Your task to perform on an android device: Do I have any events this weekend? Image 0: 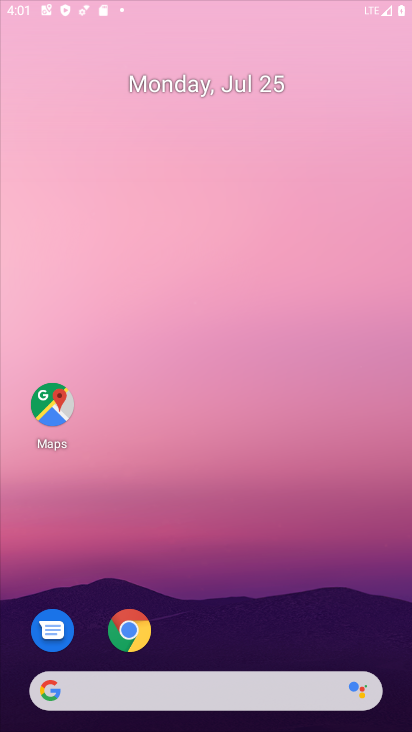
Step 0: click (233, 32)
Your task to perform on an android device: Do I have any events this weekend? Image 1: 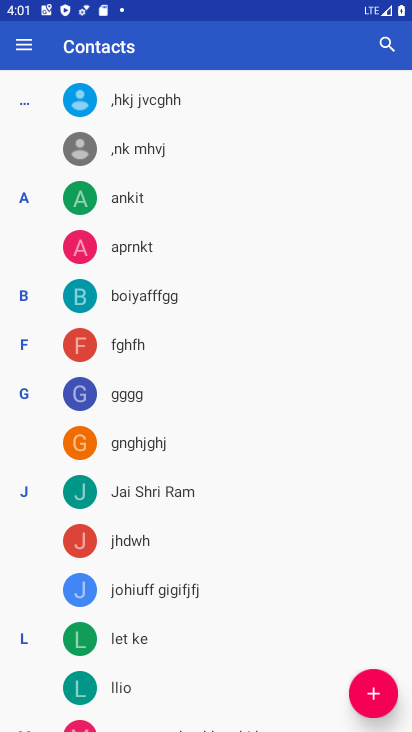
Step 1: press home button
Your task to perform on an android device: Do I have any events this weekend? Image 2: 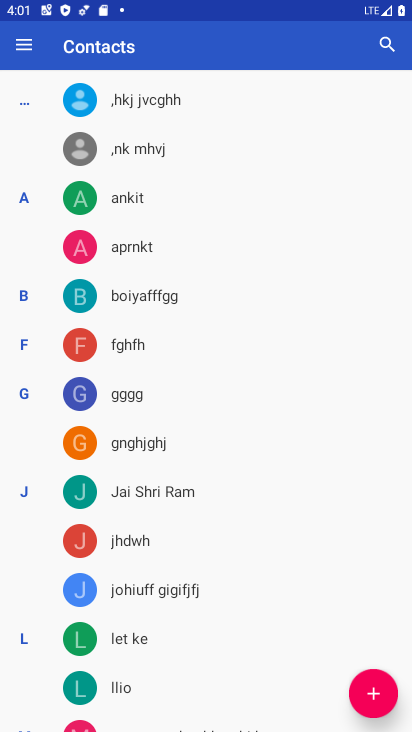
Step 2: drag from (233, 32) to (405, 461)
Your task to perform on an android device: Do I have any events this weekend? Image 3: 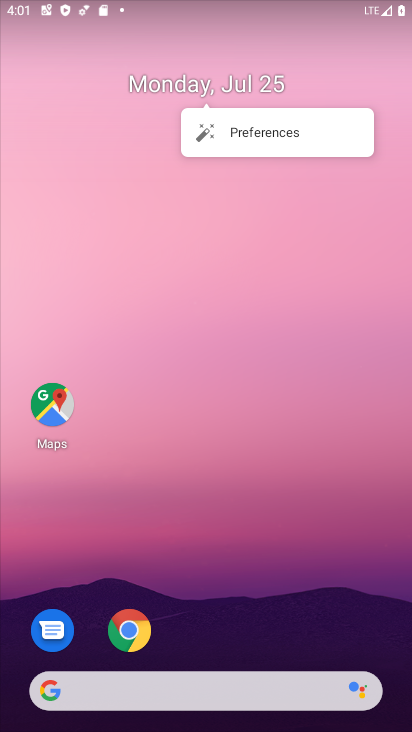
Step 3: drag from (310, 637) to (286, 139)
Your task to perform on an android device: Do I have any events this weekend? Image 4: 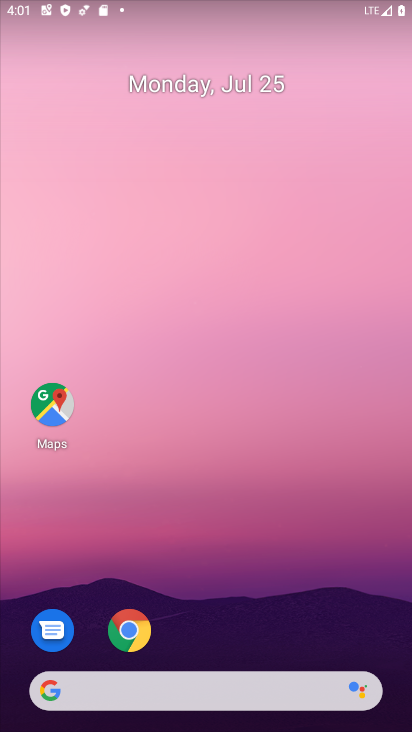
Step 4: drag from (397, 664) to (273, 5)
Your task to perform on an android device: Do I have any events this weekend? Image 5: 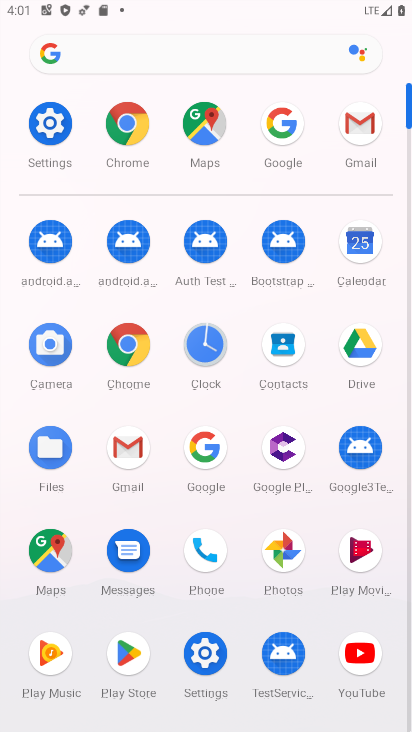
Step 5: click (361, 258)
Your task to perform on an android device: Do I have any events this weekend? Image 6: 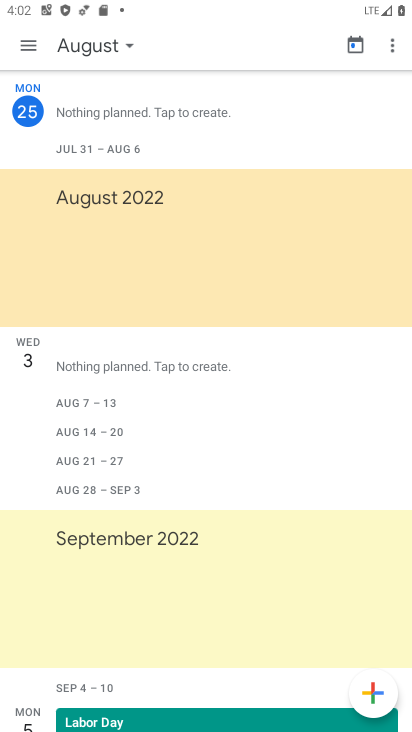
Step 6: click (23, 53)
Your task to perform on an android device: Do I have any events this weekend? Image 7: 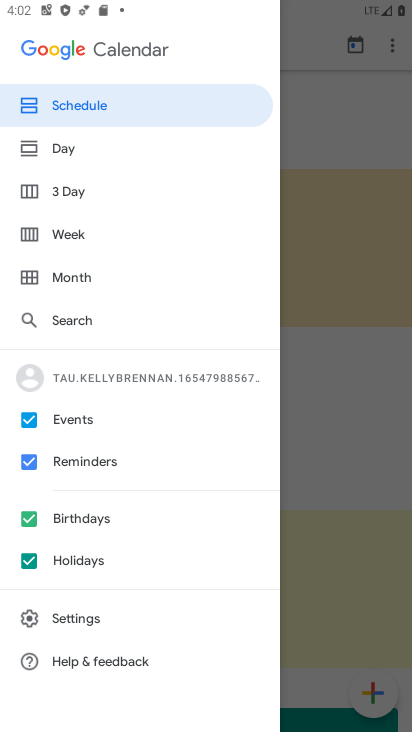
Step 7: click (28, 563)
Your task to perform on an android device: Do I have any events this weekend? Image 8: 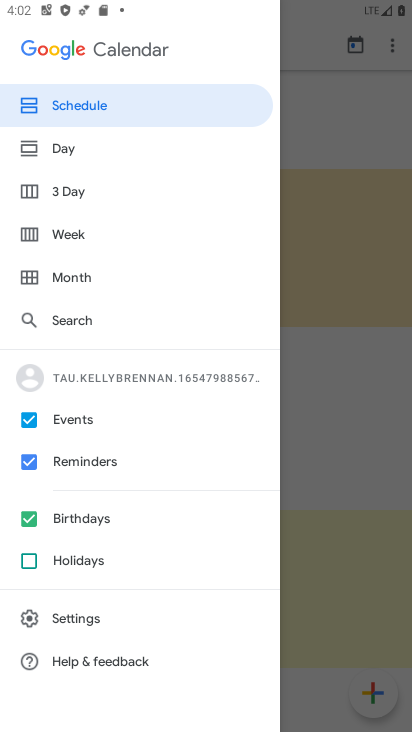
Step 8: click (26, 518)
Your task to perform on an android device: Do I have any events this weekend? Image 9: 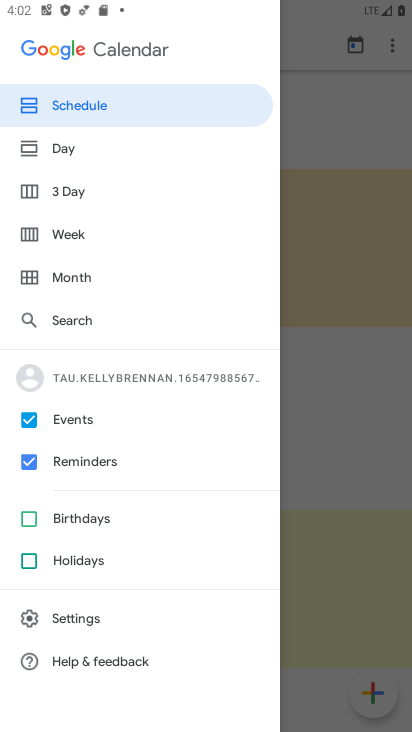
Step 9: click (29, 464)
Your task to perform on an android device: Do I have any events this weekend? Image 10: 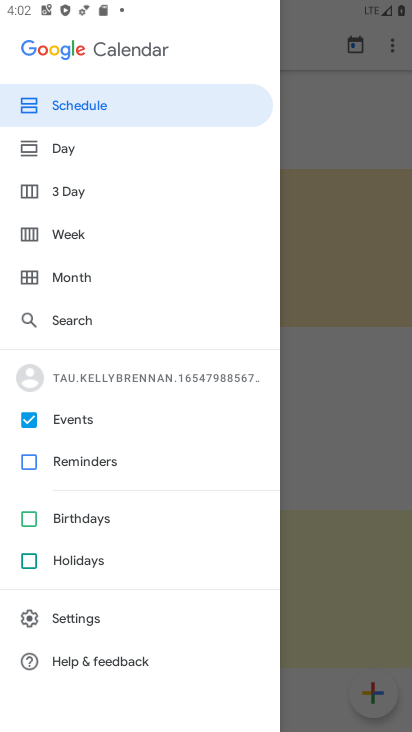
Step 10: click (57, 198)
Your task to perform on an android device: Do I have any events this weekend? Image 11: 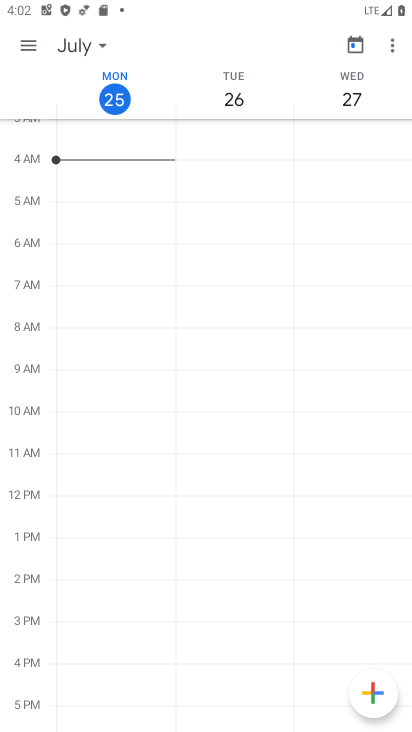
Step 11: task complete